Your task to perform on an android device: open app "Facebook" (install if not already installed) and enter user name: "resultants@gmail.com" and password: "earned" Image 0: 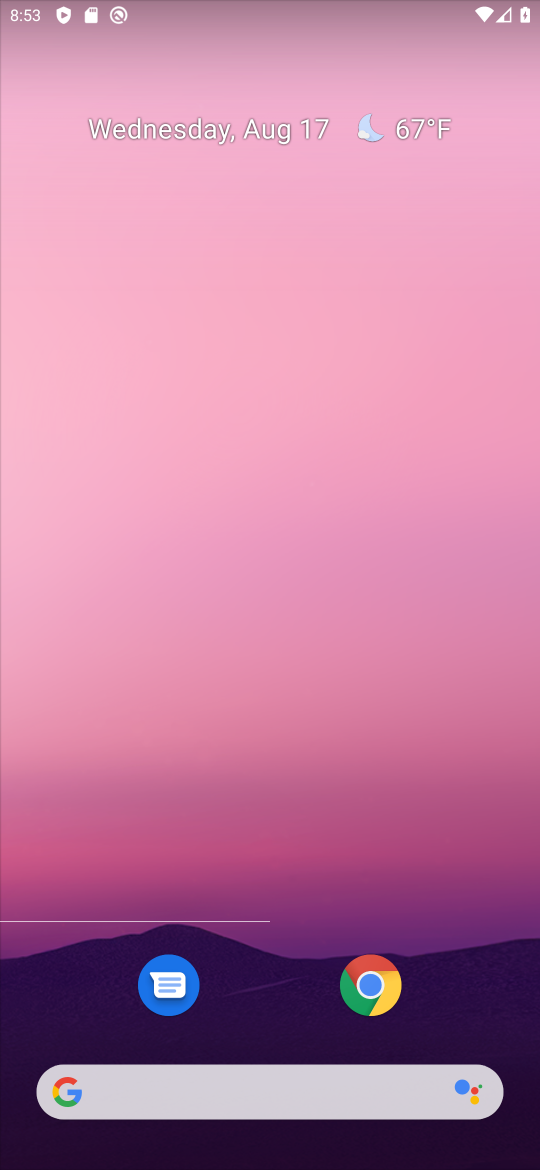
Step 0: press home button
Your task to perform on an android device: open app "Facebook" (install if not already installed) and enter user name: "resultants@gmail.com" and password: "earned" Image 1: 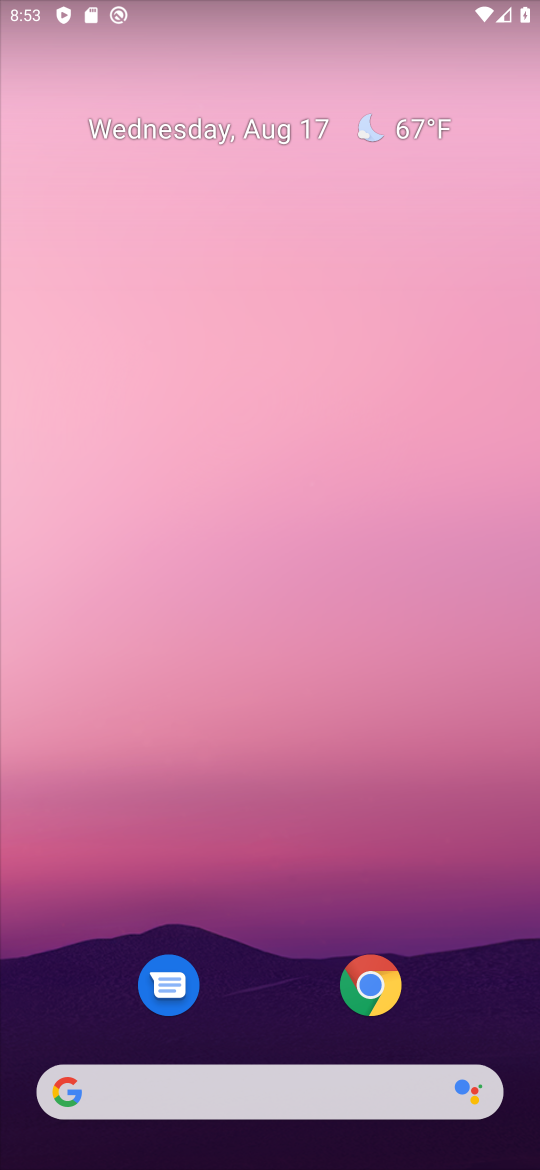
Step 1: drag from (262, 1006) to (249, 410)
Your task to perform on an android device: open app "Facebook" (install if not already installed) and enter user name: "resultants@gmail.com" and password: "earned" Image 2: 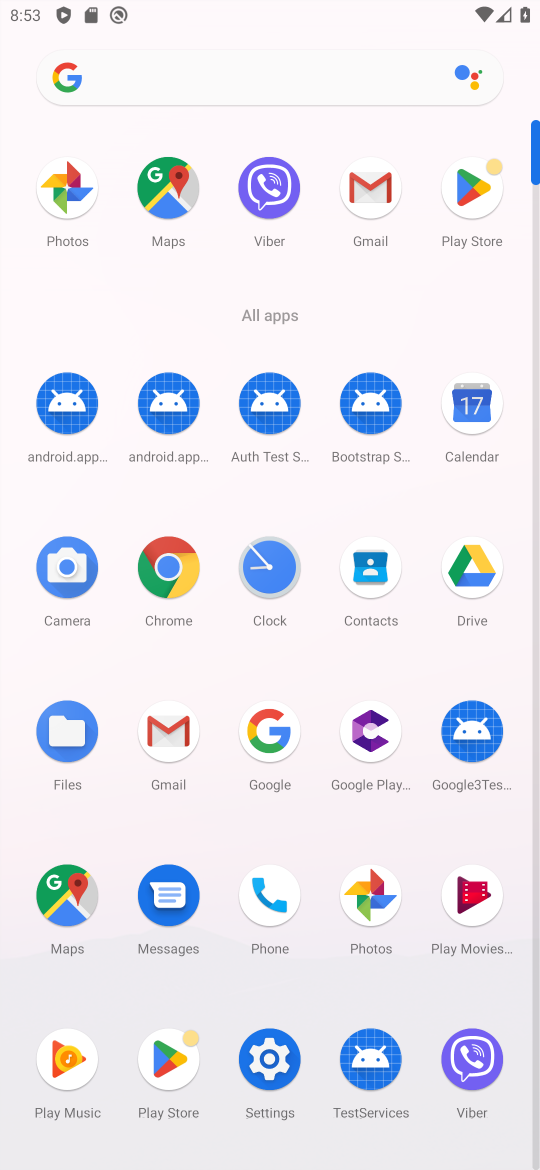
Step 2: click (456, 180)
Your task to perform on an android device: open app "Facebook" (install if not already installed) and enter user name: "resultants@gmail.com" and password: "earned" Image 3: 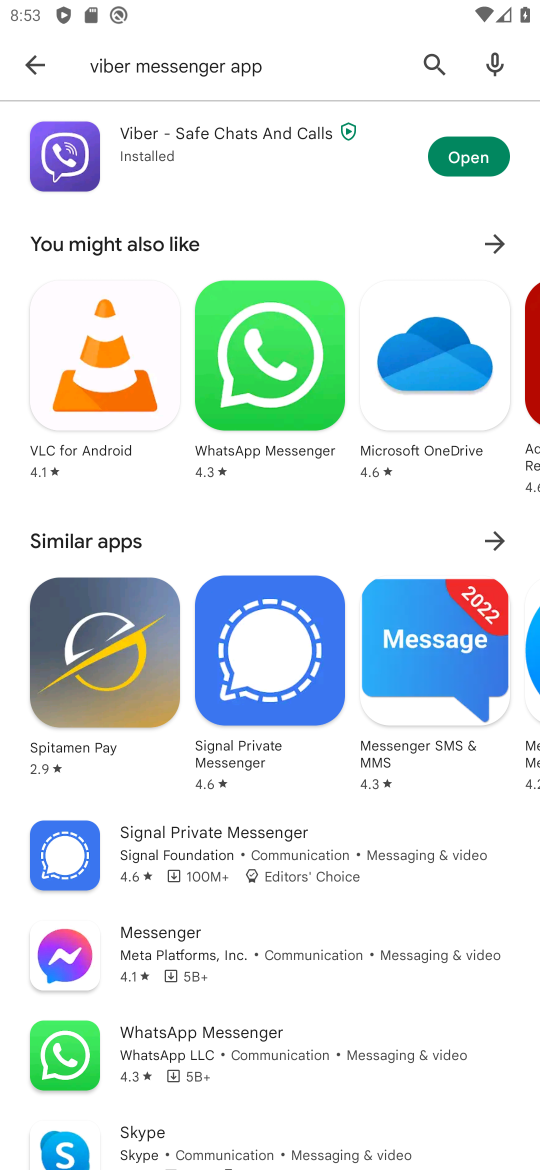
Step 3: click (33, 60)
Your task to perform on an android device: open app "Facebook" (install if not already installed) and enter user name: "resultants@gmail.com" and password: "earned" Image 4: 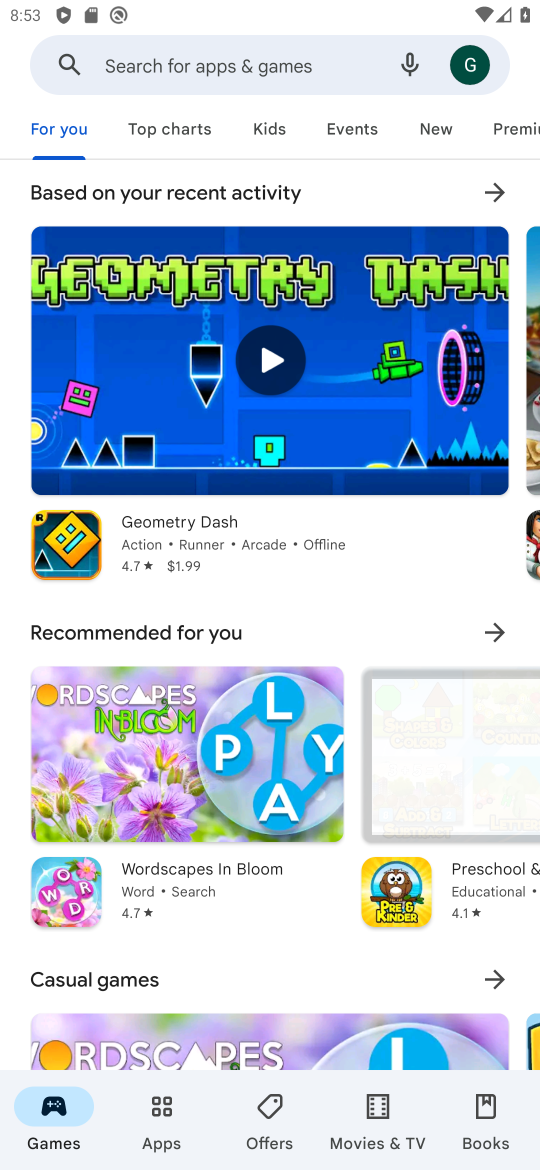
Step 4: click (246, 55)
Your task to perform on an android device: open app "Facebook" (install if not already installed) and enter user name: "resultants@gmail.com" and password: "earned" Image 5: 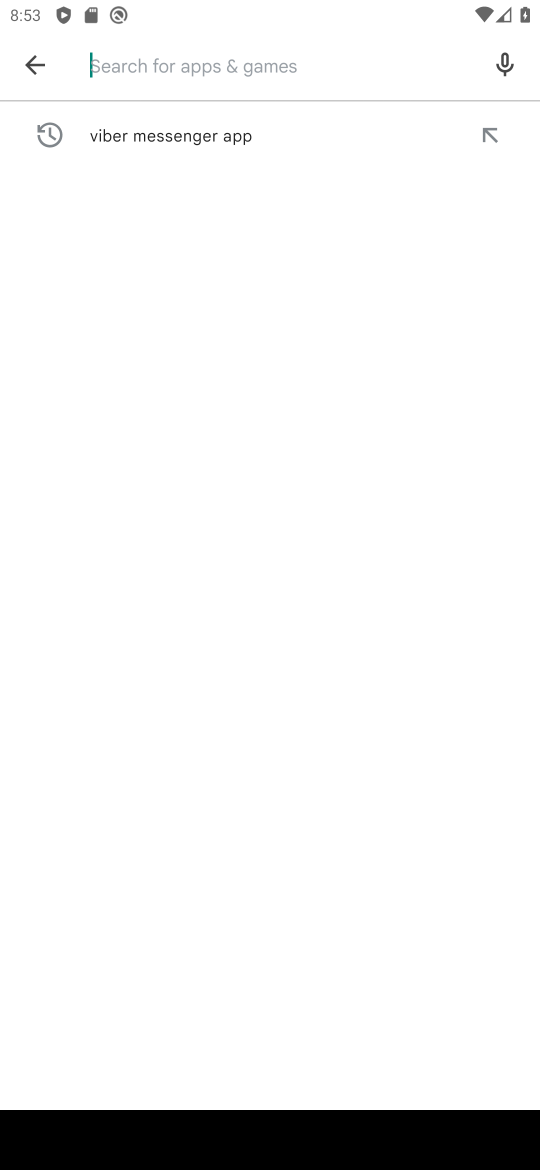
Step 5: type "Facebook"
Your task to perform on an android device: open app "Facebook" (install if not already installed) and enter user name: "resultants@gmail.com" and password: "earned" Image 6: 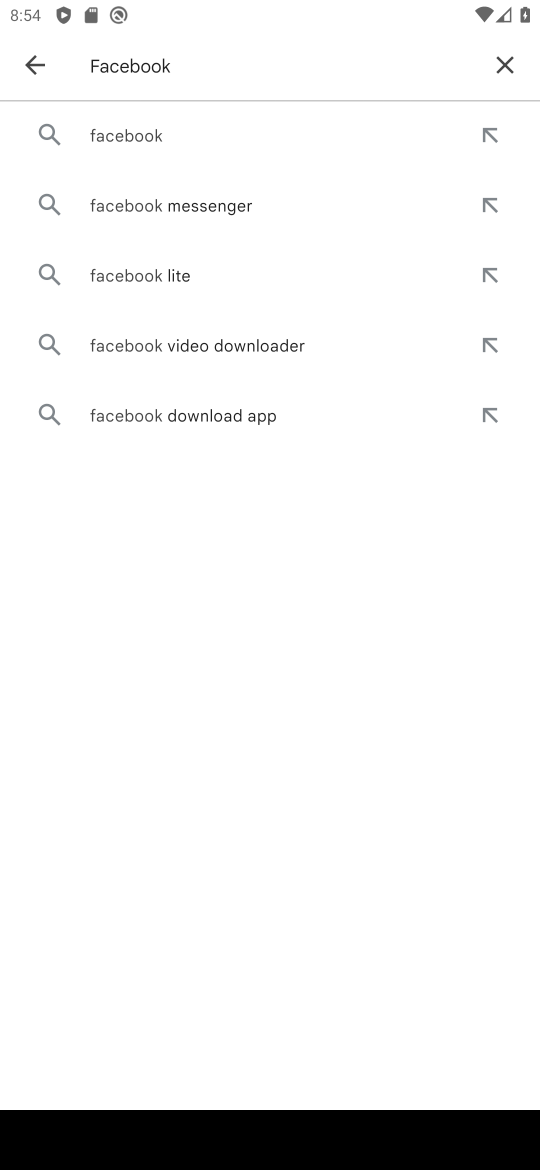
Step 6: click (124, 140)
Your task to perform on an android device: open app "Facebook" (install if not already installed) and enter user name: "resultants@gmail.com" and password: "earned" Image 7: 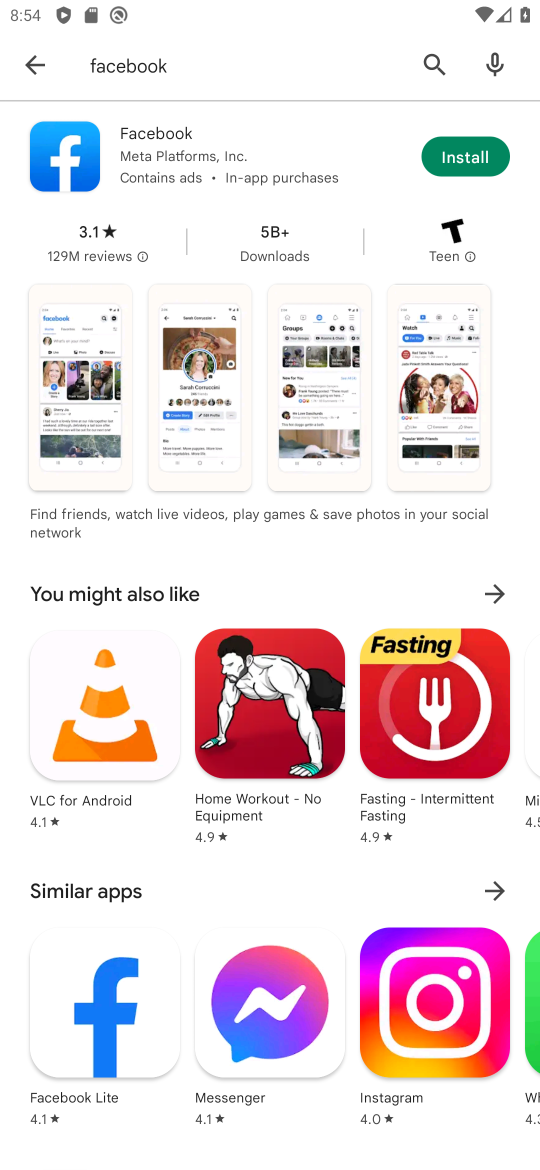
Step 7: click (456, 156)
Your task to perform on an android device: open app "Facebook" (install if not already installed) and enter user name: "resultants@gmail.com" and password: "earned" Image 8: 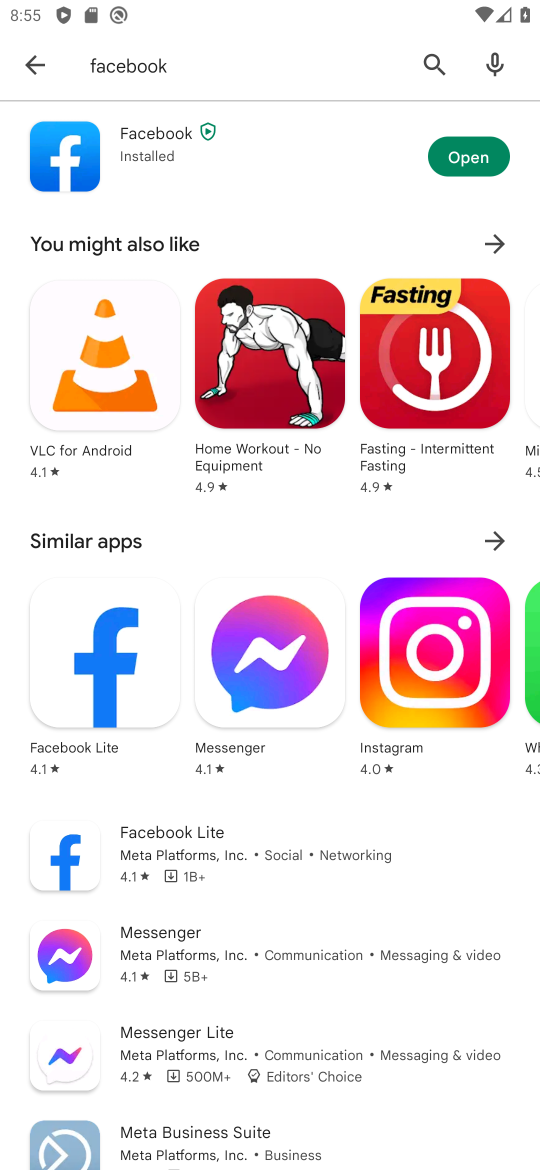
Step 8: click (456, 156)
Your task to perform on an android device: open app "Facebook" (install if not already installed) and enter user name: "resultants@gmail.com" and password: "earned" Image 9: 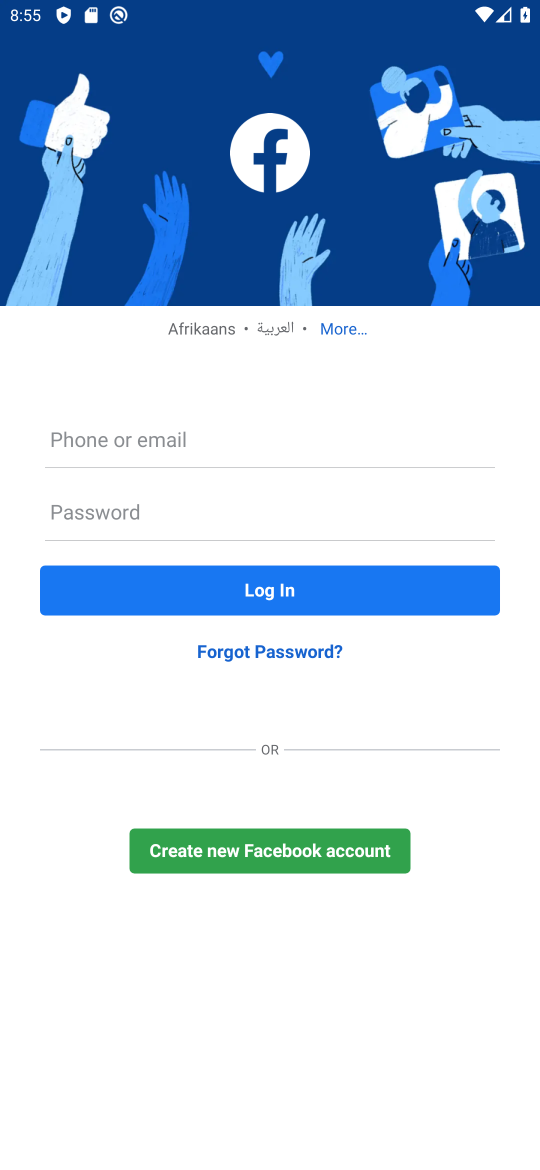
Step 9: click (265, 428)
Your task to perform on an android device: open app "Facebook" (install if not already installed) and enter user name: "resultants@gmail.com" and password: "earned" Image 10: 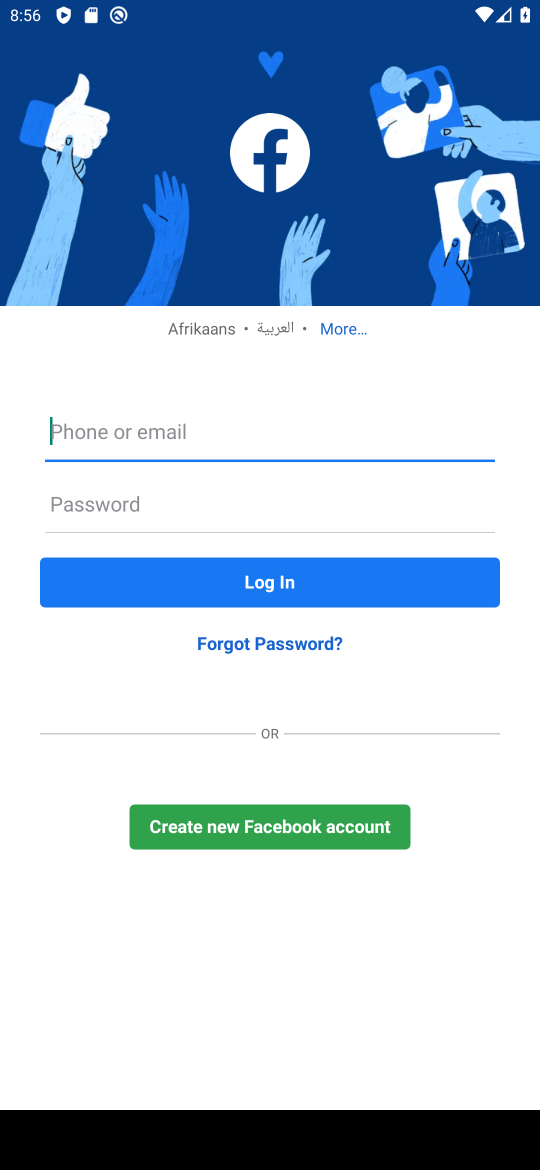
Step 10: type "resultants@gmail.com"
Your task to perform on an android device: open app "Facebook" (install if not already installed) and enter user name: "resultants@gmail.com" and password: "earned" Image 11: 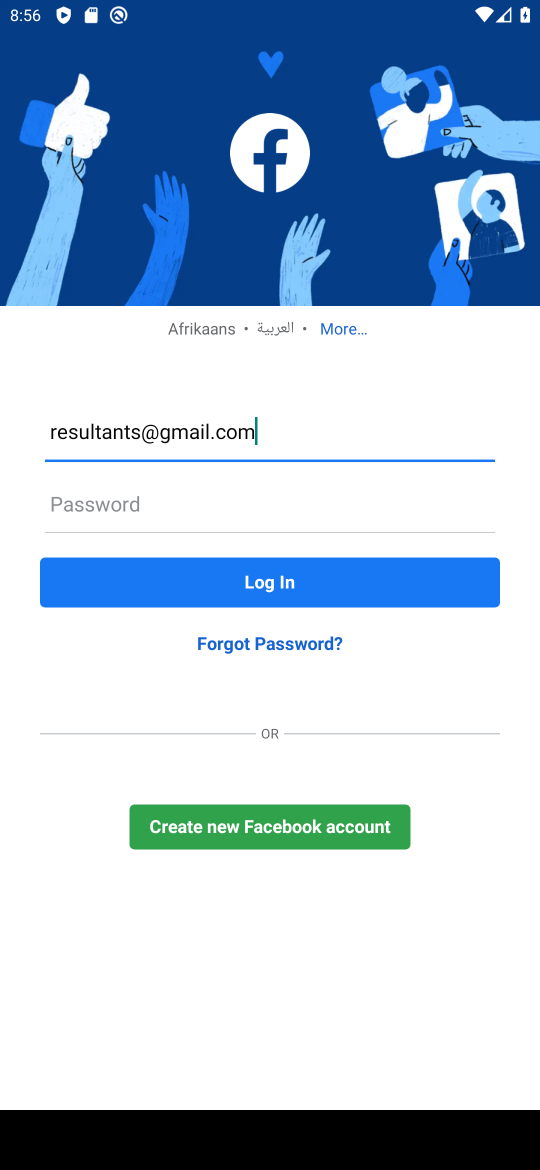
Step 11: click (141, 501)
Your task to perform on an android device: open app "Facebook" (install if not already installed) and enter user name: "resultants@gmail.com" and password: "earned" Image 12: 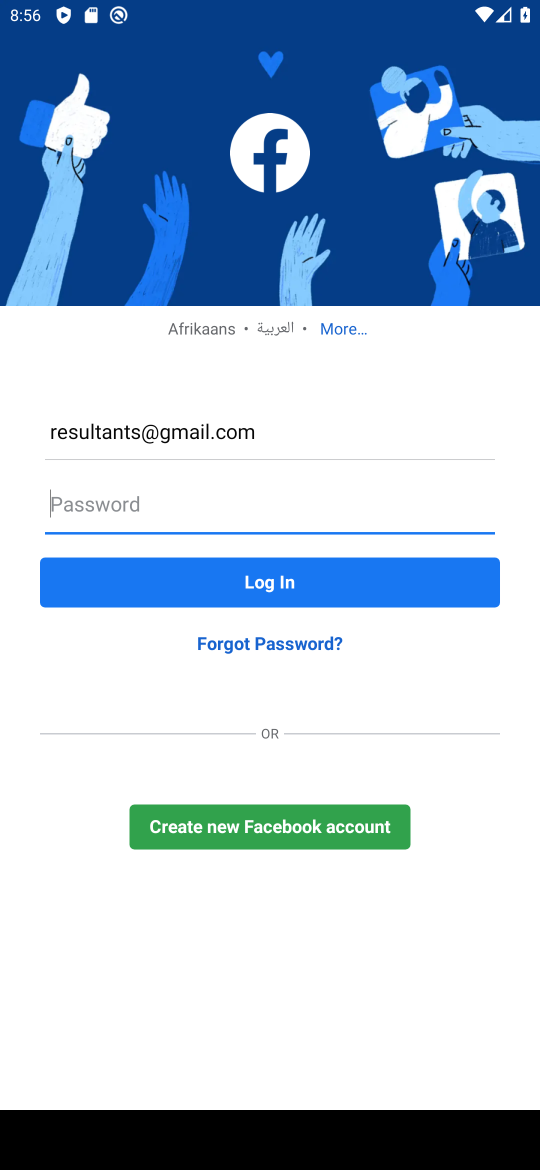
Step 12: type "earned"
Your task to perform on an android device: open app "Facebook" (install if not already installed) and enter user name: "resultants@gmail.com" and password: "earned" Image 13: 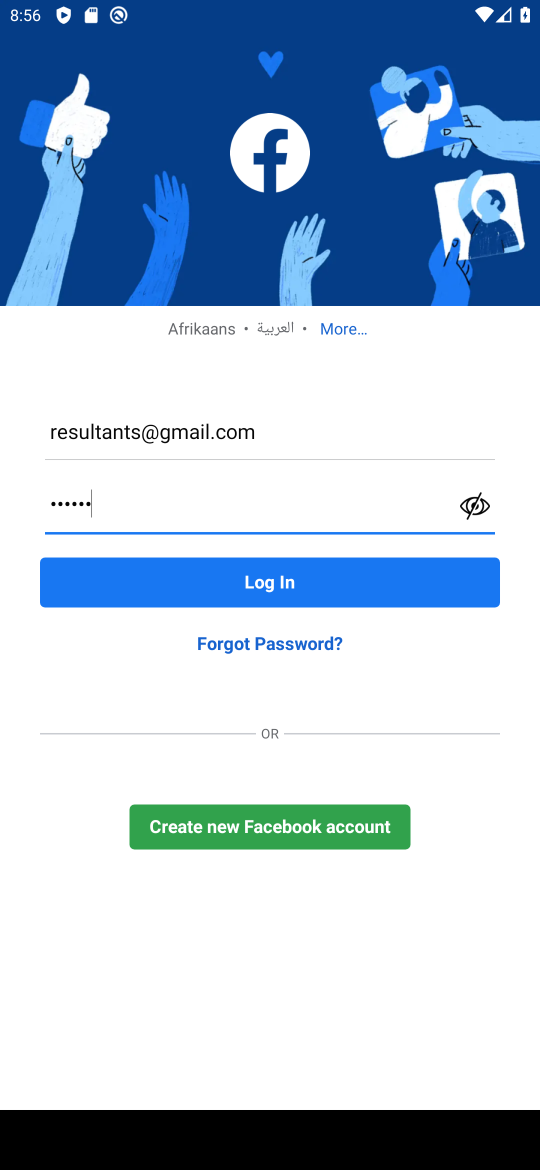
Step 13: task complete